Your task to perform on an android device: Go to Amazon Image 0: 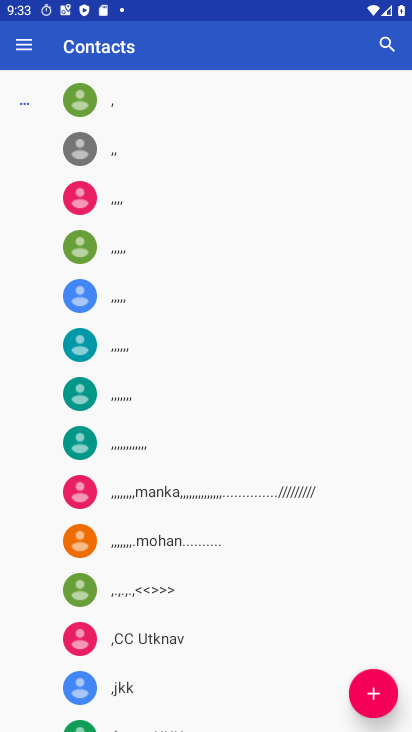
Step 0: press home button
Your task to perform on an android device: Go to Amazon Image 1: 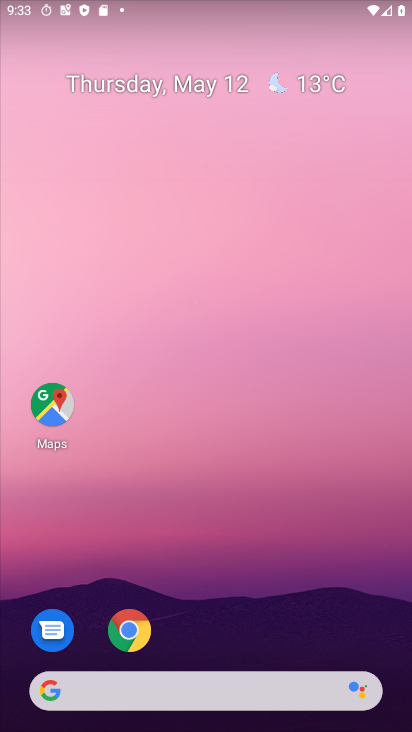
Step 1: click (134, 621)
Your task to perform on an android device: Go to Amazon Image 2: 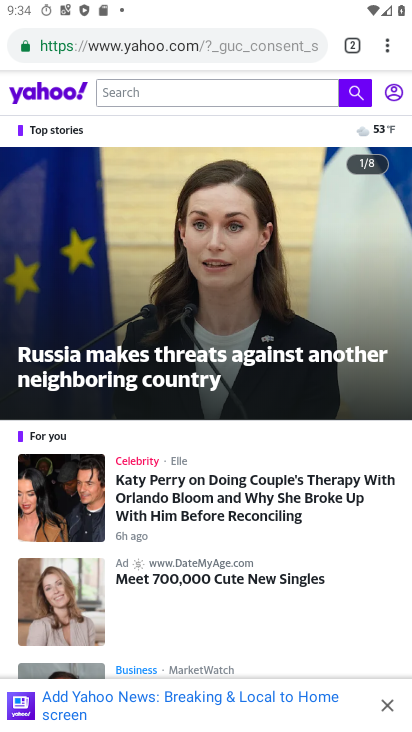
Step 2: click (171, 40)
Your task to perform on an android device: Go to Amazon Image 3: 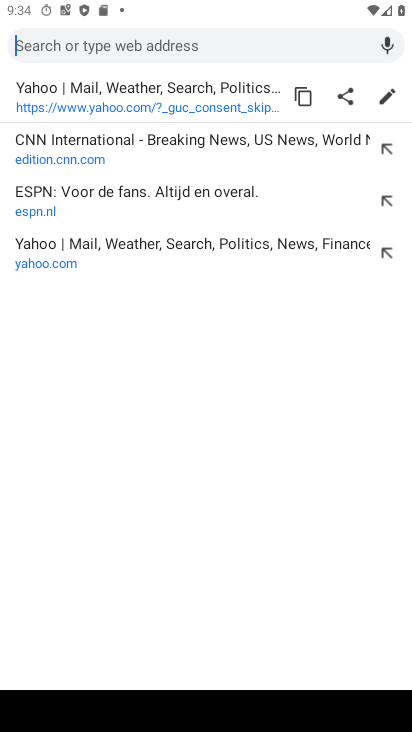
Step 3: type "amazon"
Your task to perform on an android device: Go to Amazon Image 4: 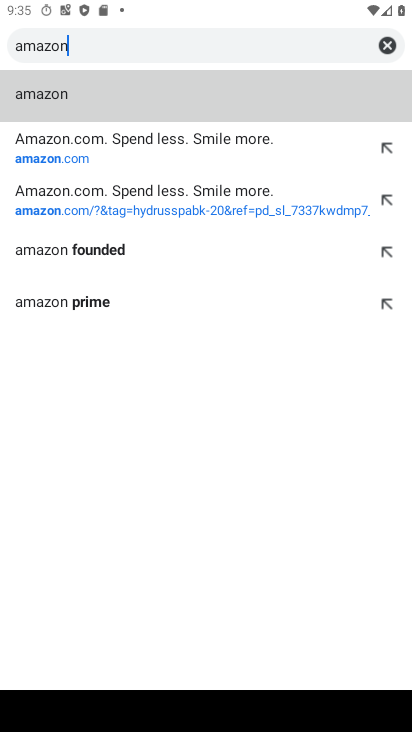
Step 4: click (94, 156)
Your task to perform on an android device: Go to Amazon Image 5: 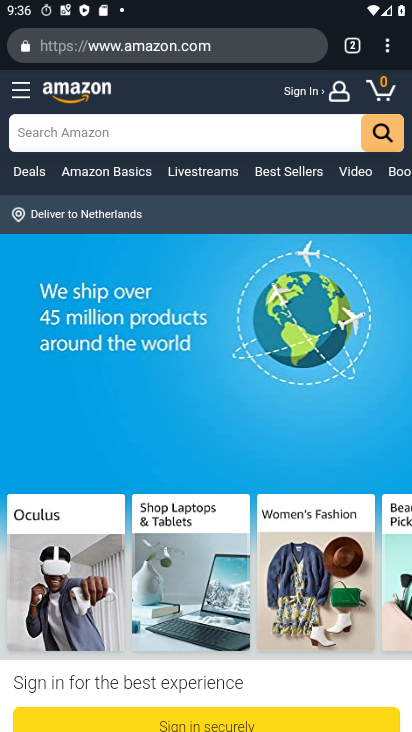
Step 5: task complete